Your task to perform on an android device: change the clock display to show seconds Image 0: 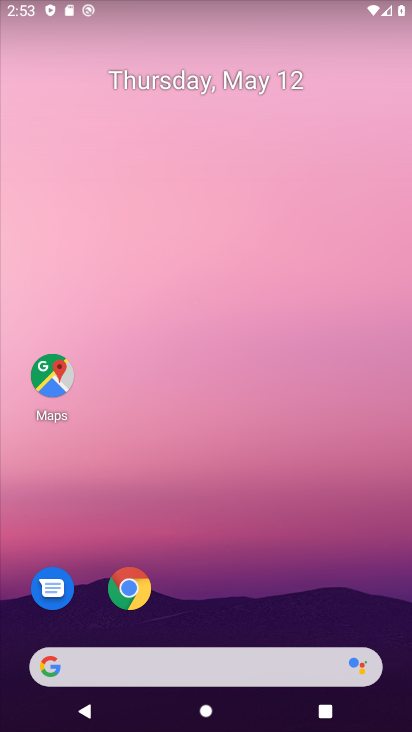
Step 0: drag from (257, 562) to (236, 63)
Your task to perform on an android device: change the clock display to show seconds Image 1: 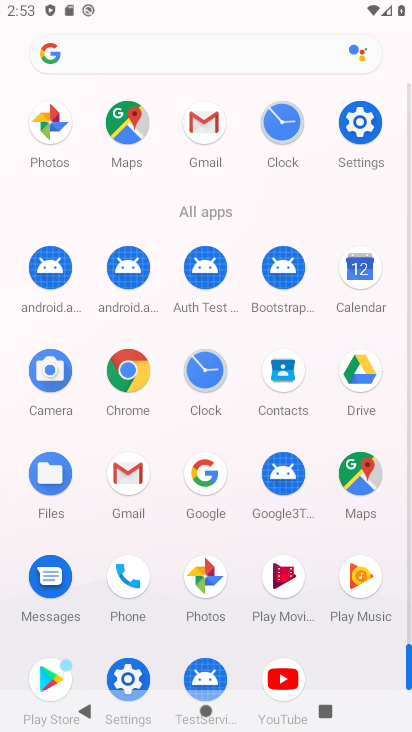
Step 1: drag from (17, 532) to (17, 199)
Your task to perform on an android device: change the clock display to show seconds Image 2: 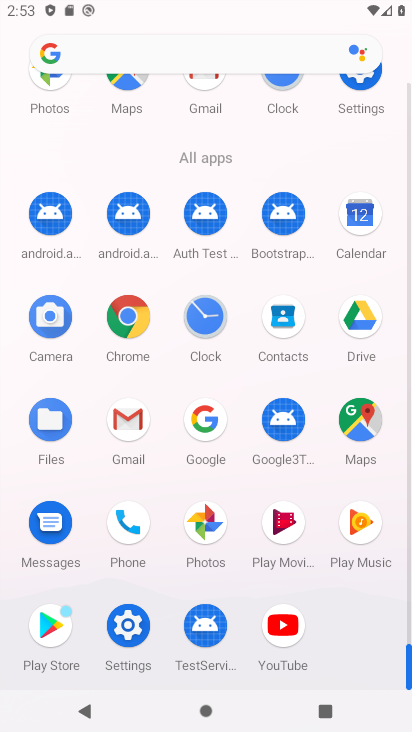
Step 2: click (203, 311)
Your task to perform on an android device: change the clock display to show seconds Image 3: 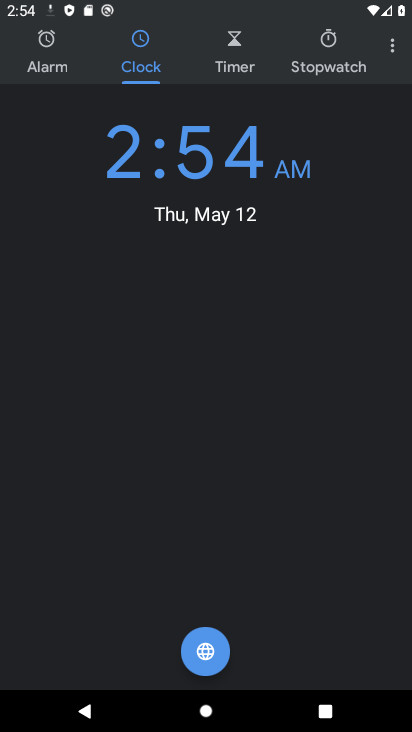
Step 3: drag from (390, 48) to (357, 101)
Your task to perform on an android device: change the clock display to show seconds Image 4: 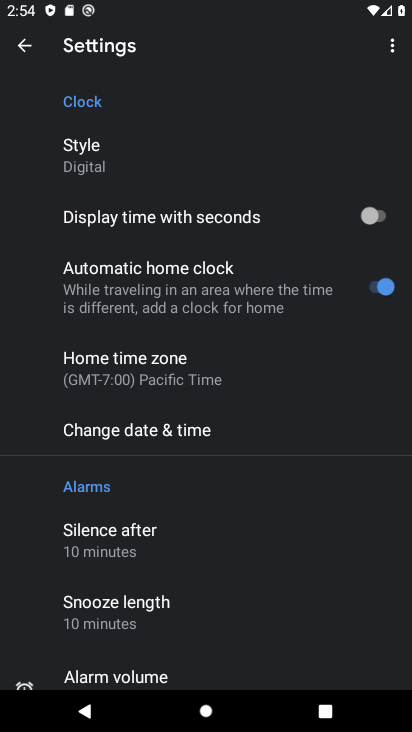
Step 4: click (369, 211)
Your task to perform on an android device: change the clock display to show seconds Image 5: 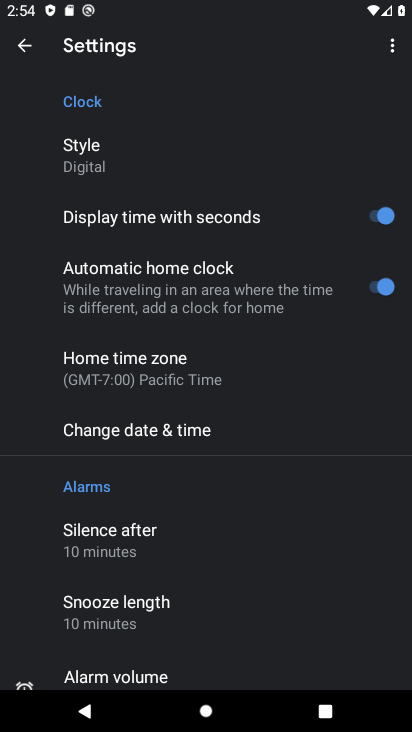
Step 5: task complete